Your task to perform on an android device: manage bookmarks in the chrome app Image 0: 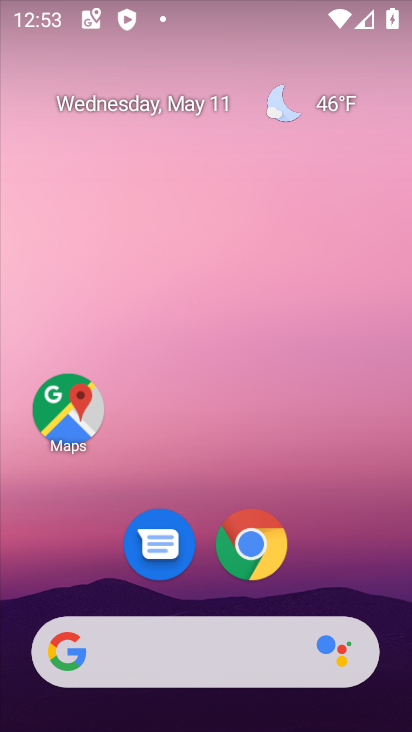
Step 0: click (255, 543)
Your task to perform on an android device: manage bookmarks in the chrome app Image 1: 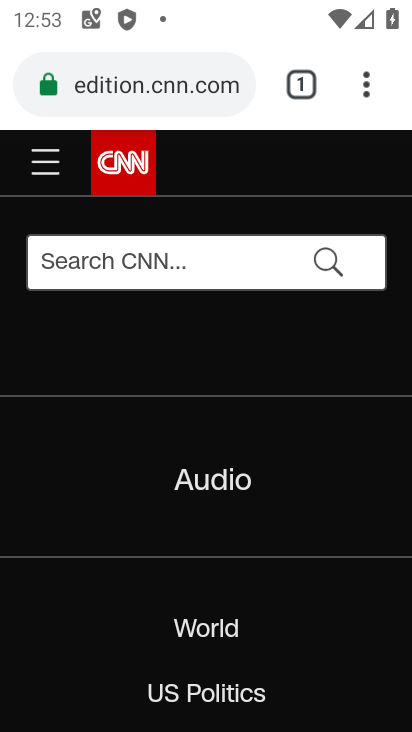
Step 1: click (366, 90)
Your task to perform on an android device: manage bookmarks in the chrome app Image 2: 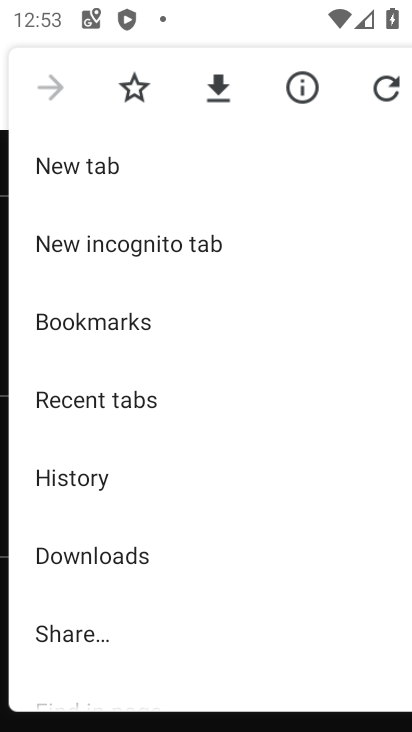
Step 2: click (84, 317)
Your task to perform on an android device: manage bookmarks in the chrome app Image 3: 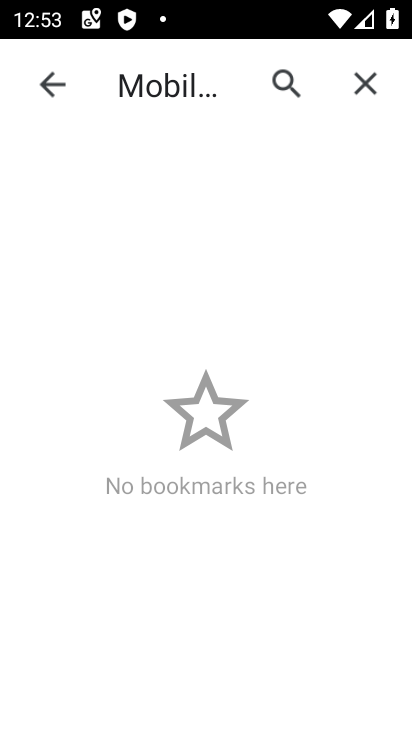
Step 3: task complete